Your task to perform on an android device: allow notifications from all sites in the chrome app Image 0: 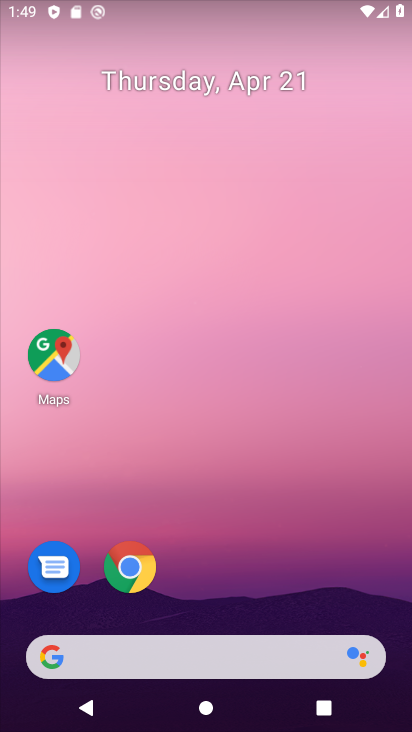
Step 0: drag from (134, 663) to (322, 38)
Your task to perform on an android device: allow notifications from all sites in the chrome app Image 1: 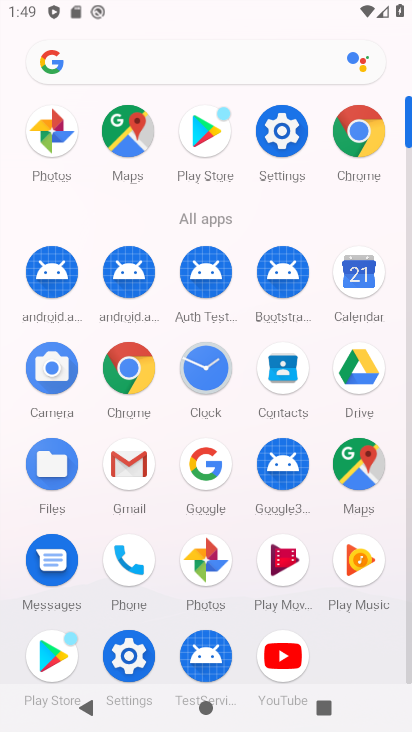
Step 1: click (366, 138)
Your task to perform on an android device: allow notifications from all sites in the chrome app Image 2: 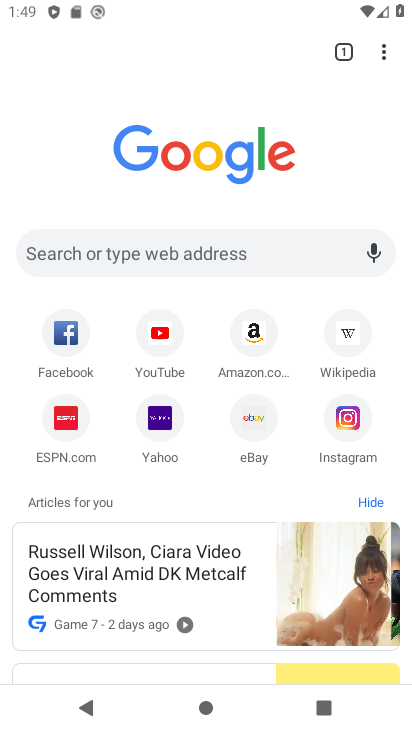
Step 2: click (379, 56)
Your task to perform on an android device: allow notifications from all sites in the chrome app Image 3: 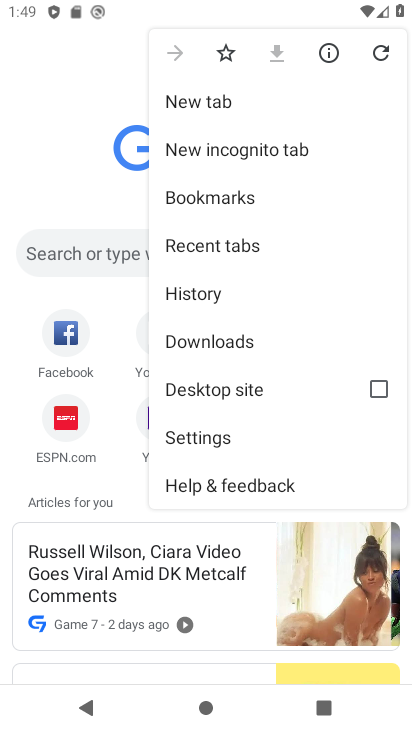
Step 3: click (222, 437)
Your task to perform on an android device: allow notifications from all sites in the chrome app Image 4: 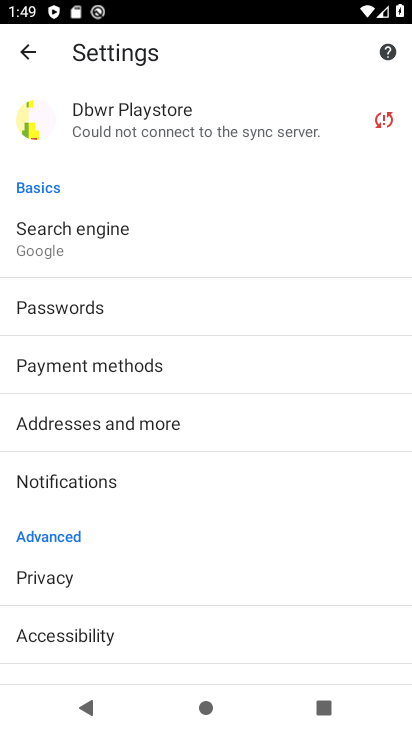
Step 4: drag from (157, 617) to (319, 276)
Your task to perform on an android device: allow notifications from all sites in the chrome app Image 5: 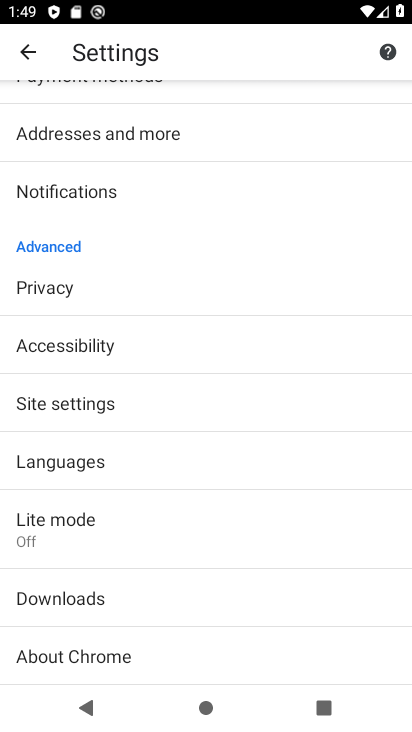
Step 5: click (71, 402)
Your task to perform on an android device: allow notifications from all sites in the chrome app Image 6: 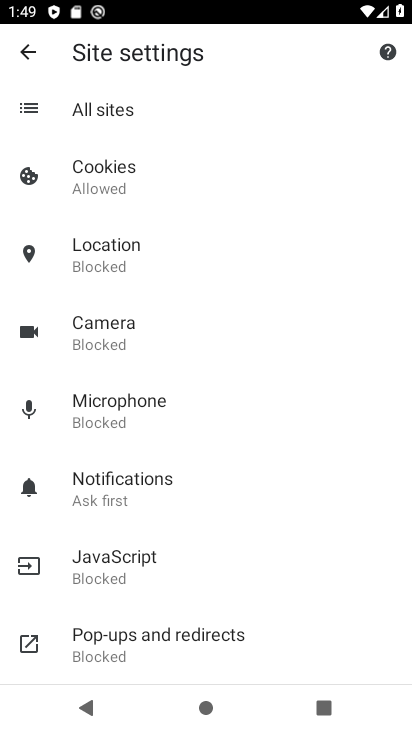
Step 6: click (112, 492)
Your task to perform on an android device: allow notifications from all sites in the chrome app Image 7: 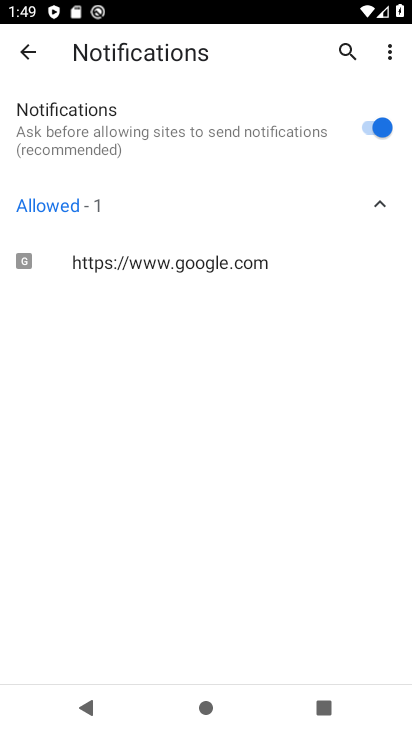
Step 7: task complete